Your task to perform on an android device: uninstall "Google Calendar" Image 0: 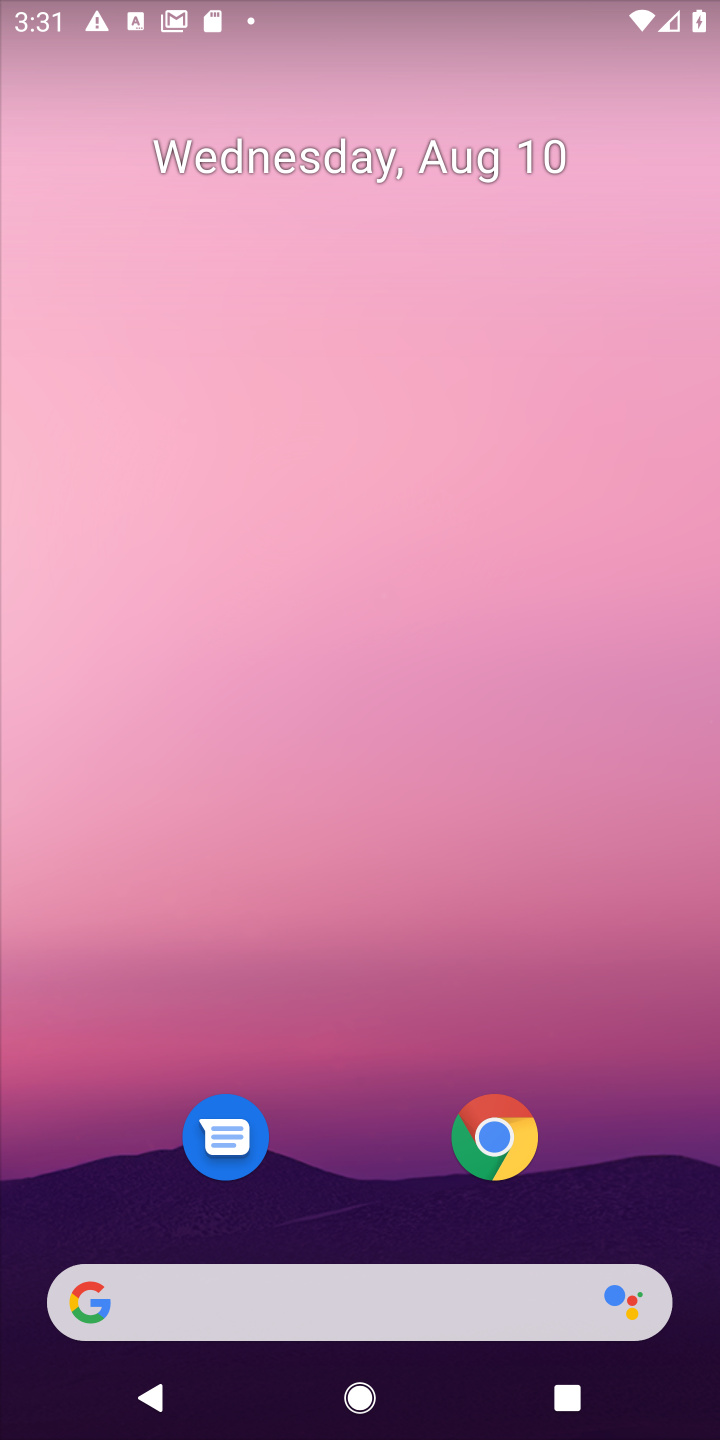
Step 0: drag from (348, 990) to (406, 688)
Your task to perform on an android device: uninstall "Google Calendar" Image 1: 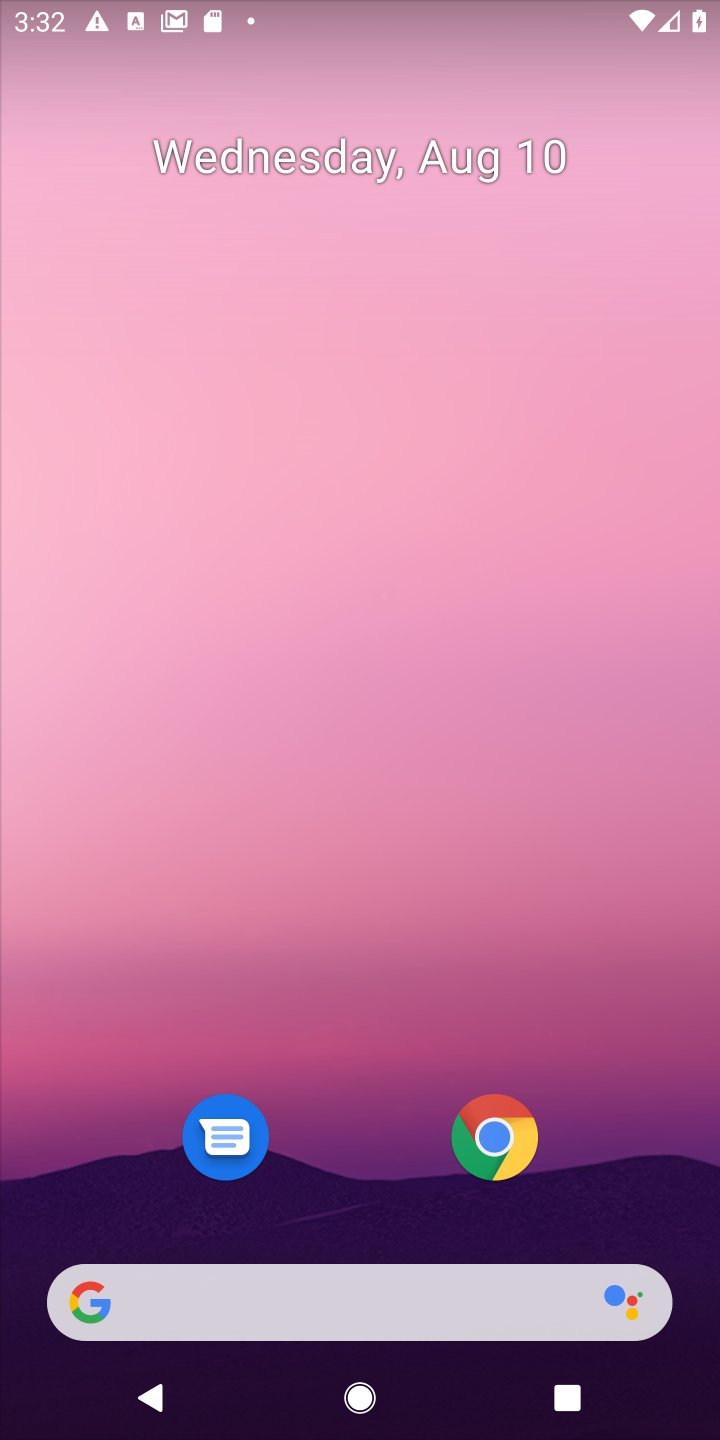
Step 1: drag from (439, 1160) to (388, 454)
Your task to perform on an android device: uninstall "Google Calendar" Image 2: 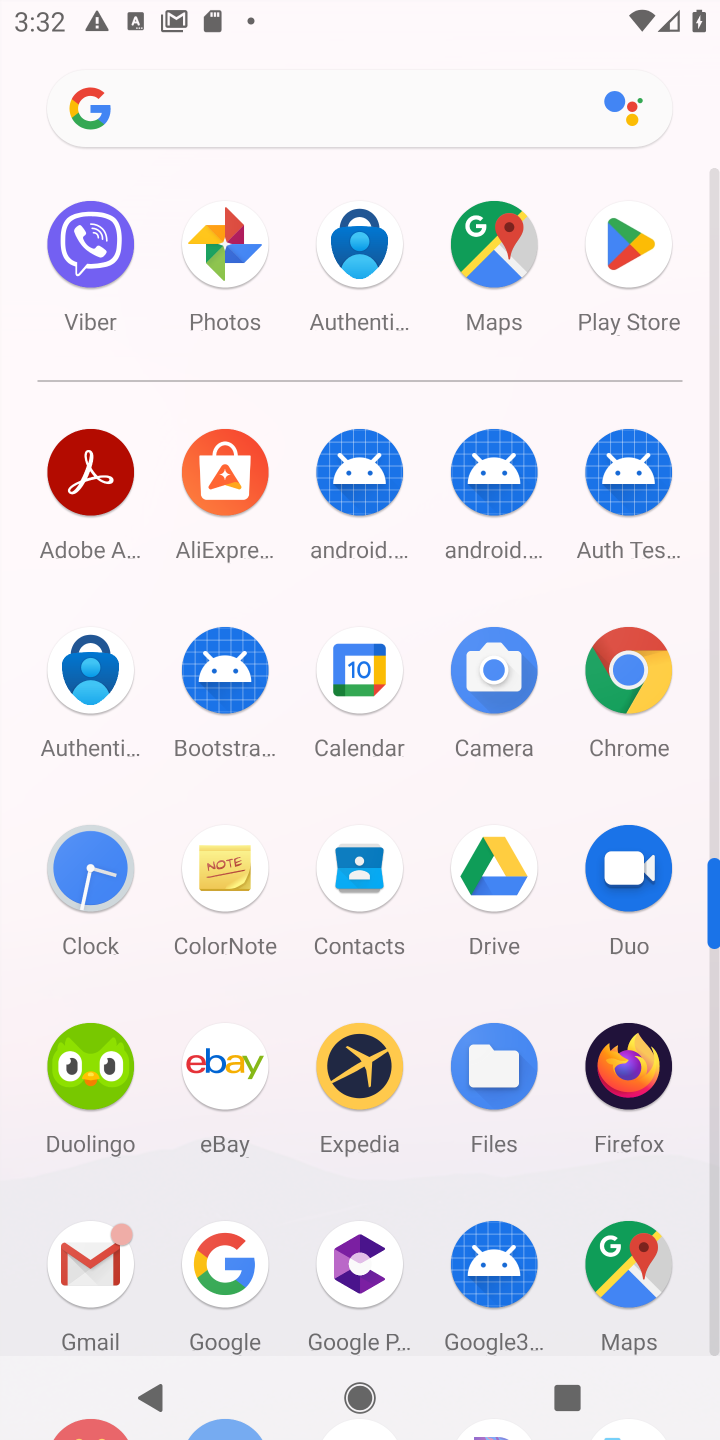
Step 2: click (609, 264)
Your task to perform on an android device: uninstall "Google Calendar" Image 3: 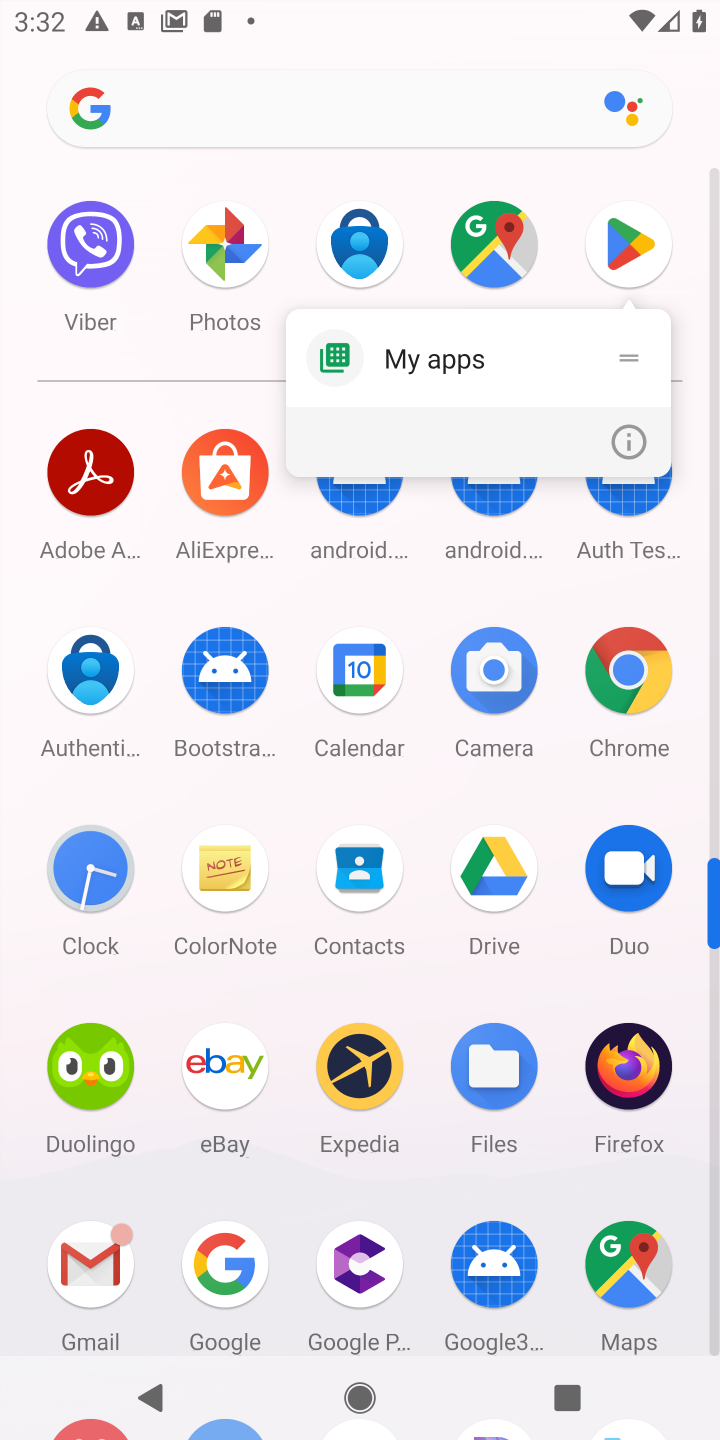
Step 3: click (609, 264)
Your task to perform on an android device: uninstall "Google Calendar" Image 4: 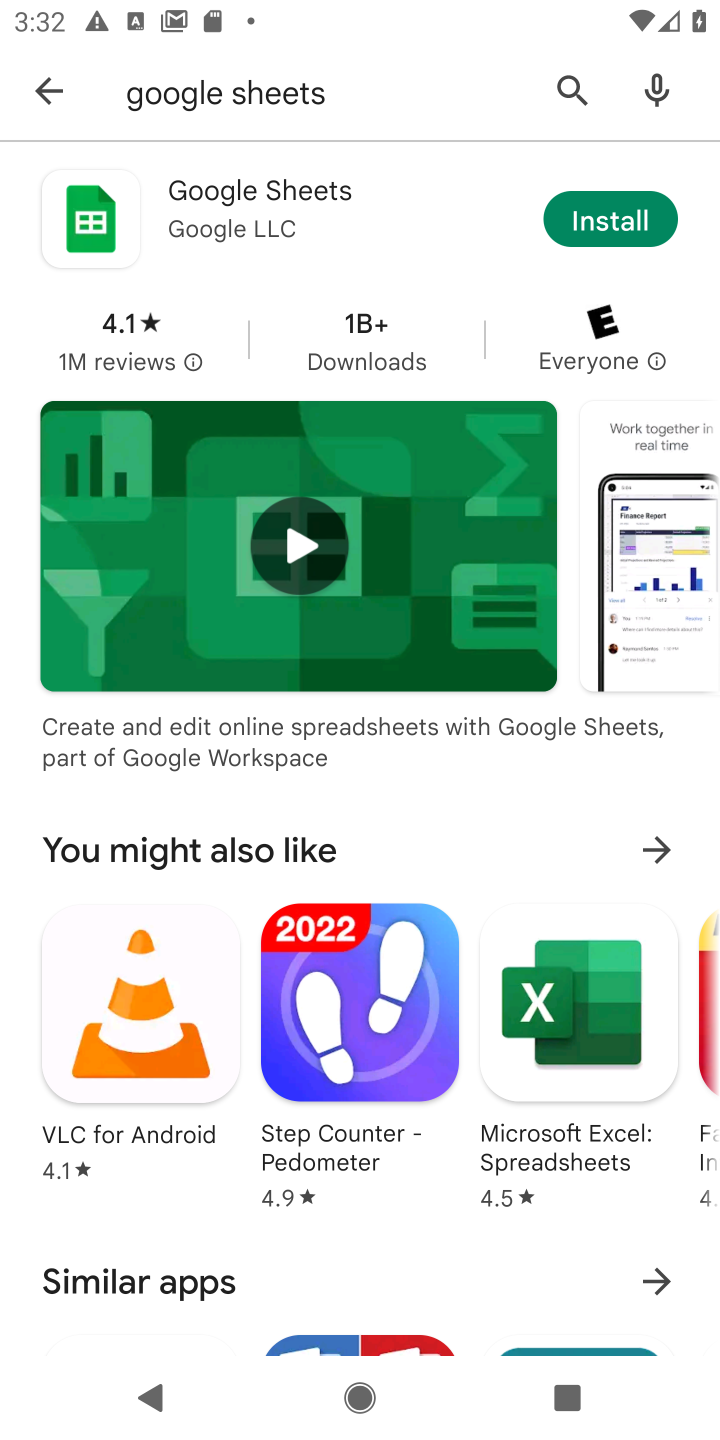
Step 4: click (264, 91)
Your task to perform on an android device: uninstall "Google Calendar" Image 5: 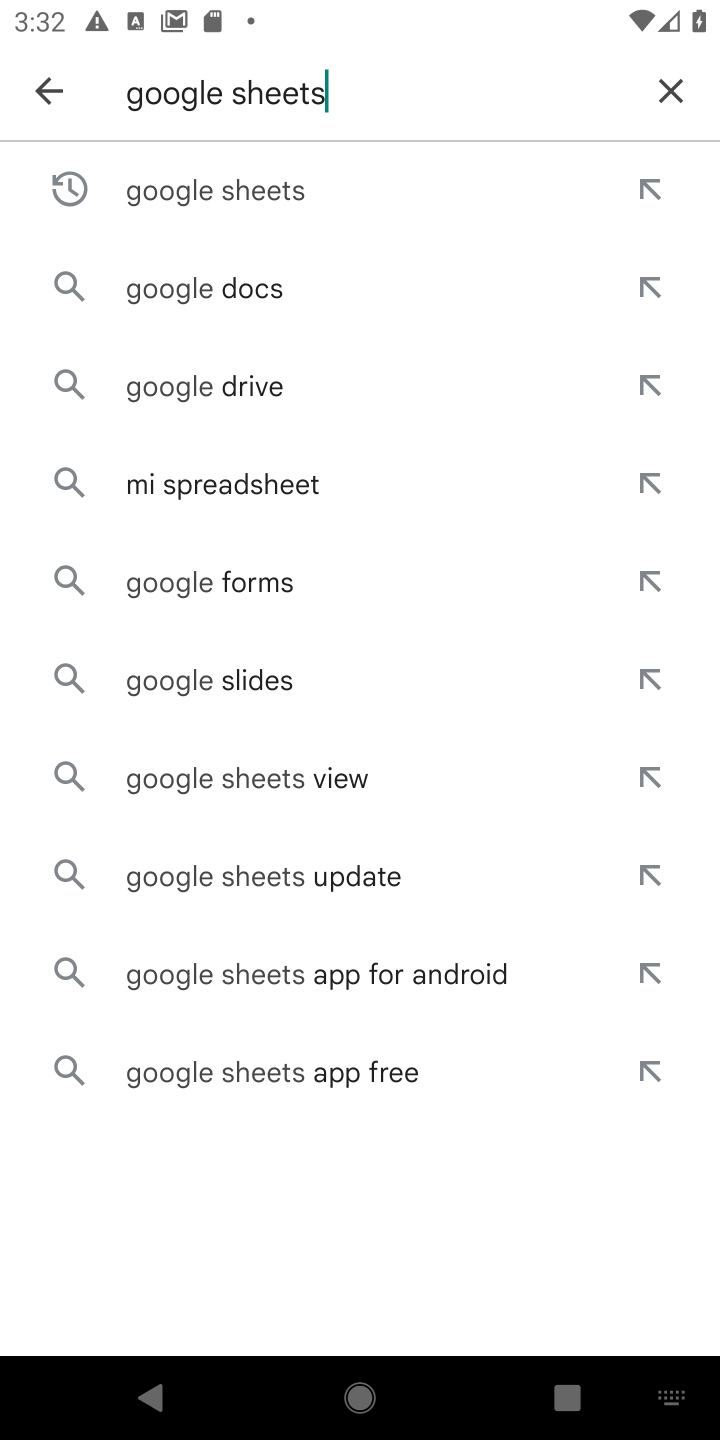
Step 5: click (669, 77)
Your task to perform on an android device: uninstall "Google Calendar" Image 6: 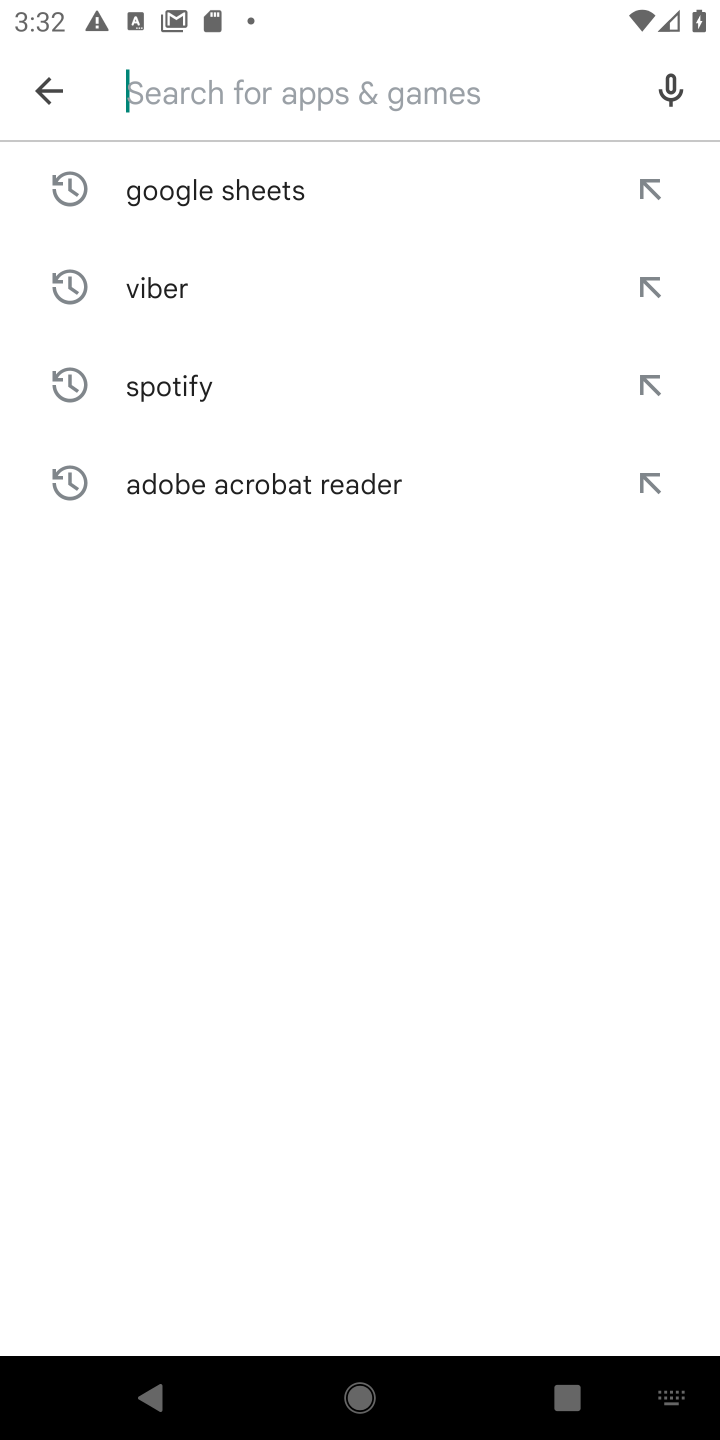
Step 6: type "google calender"
Your task to perform on an android device: uninstall "Google Calendar" Image 7: 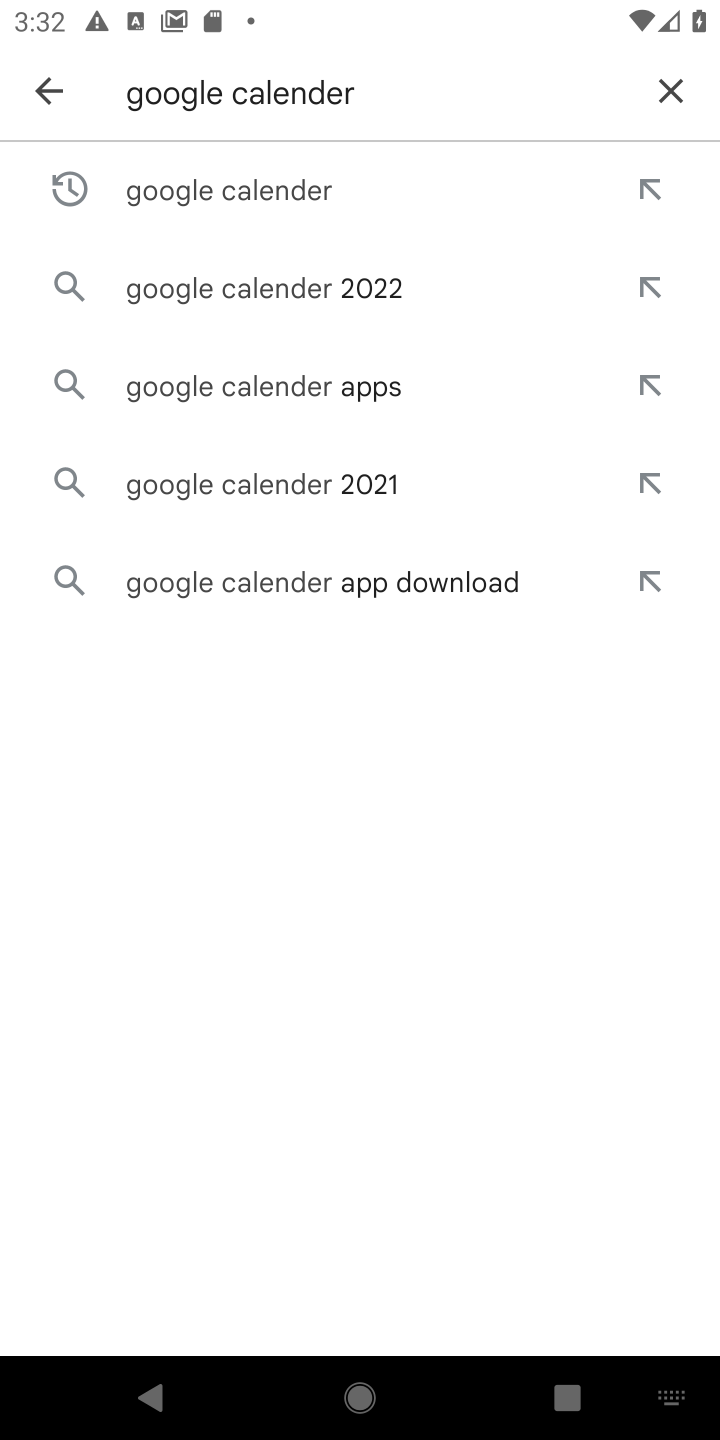
Step 7: click (292, 201)
Your task to perform on an android device: uninstall "Google Calendar" Image 8: 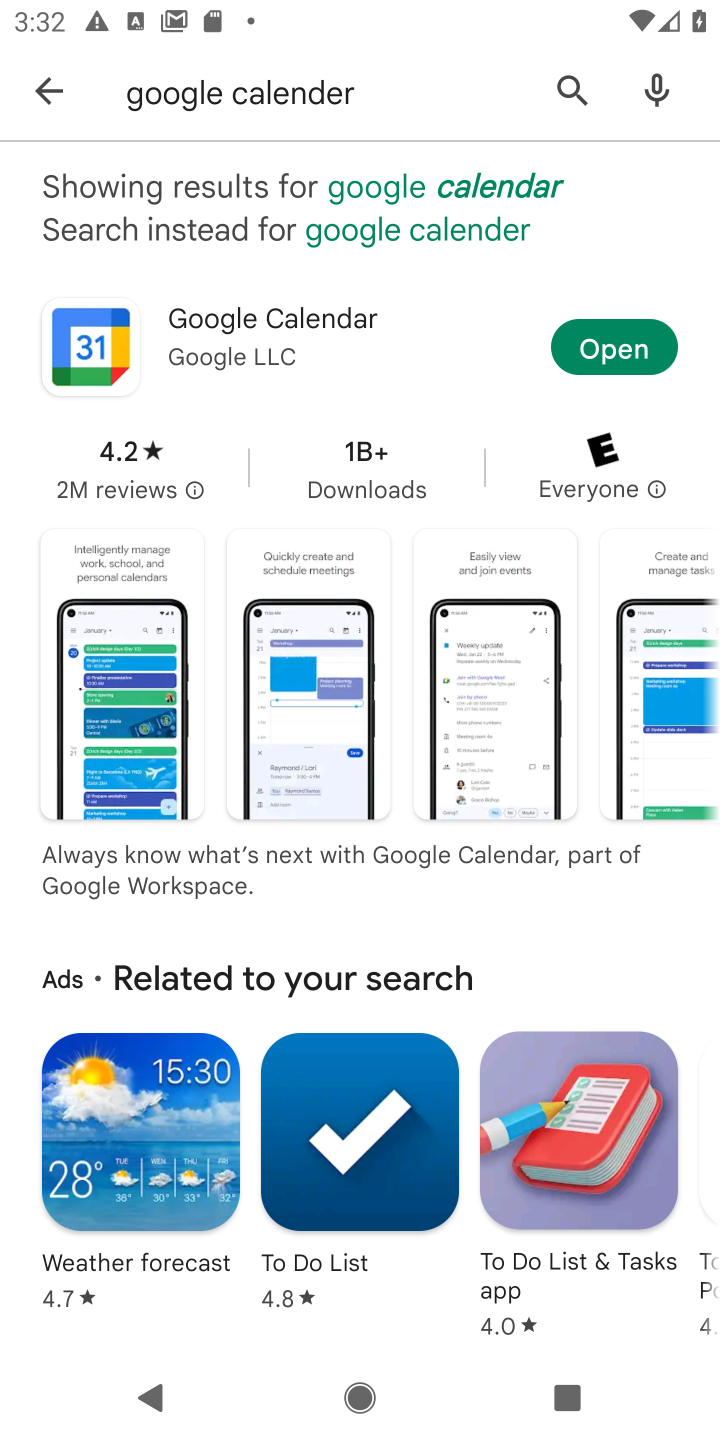
Step 8: click (130, 327)
Your task to perform on an android device: uninstall "Google Calendar" Image 9: 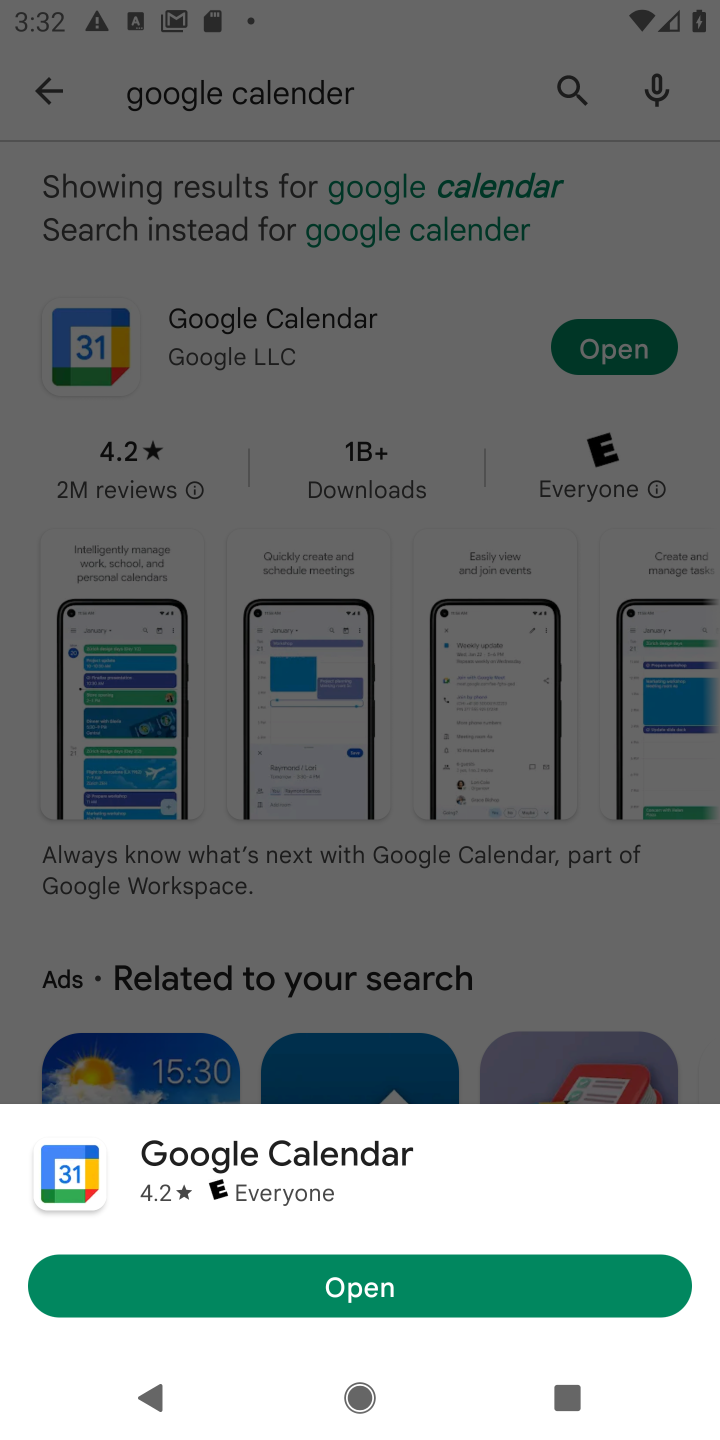
Step 9: click (267, 334)
Your task to perform on an android device: uninstall "Google Calendar" Image 10: 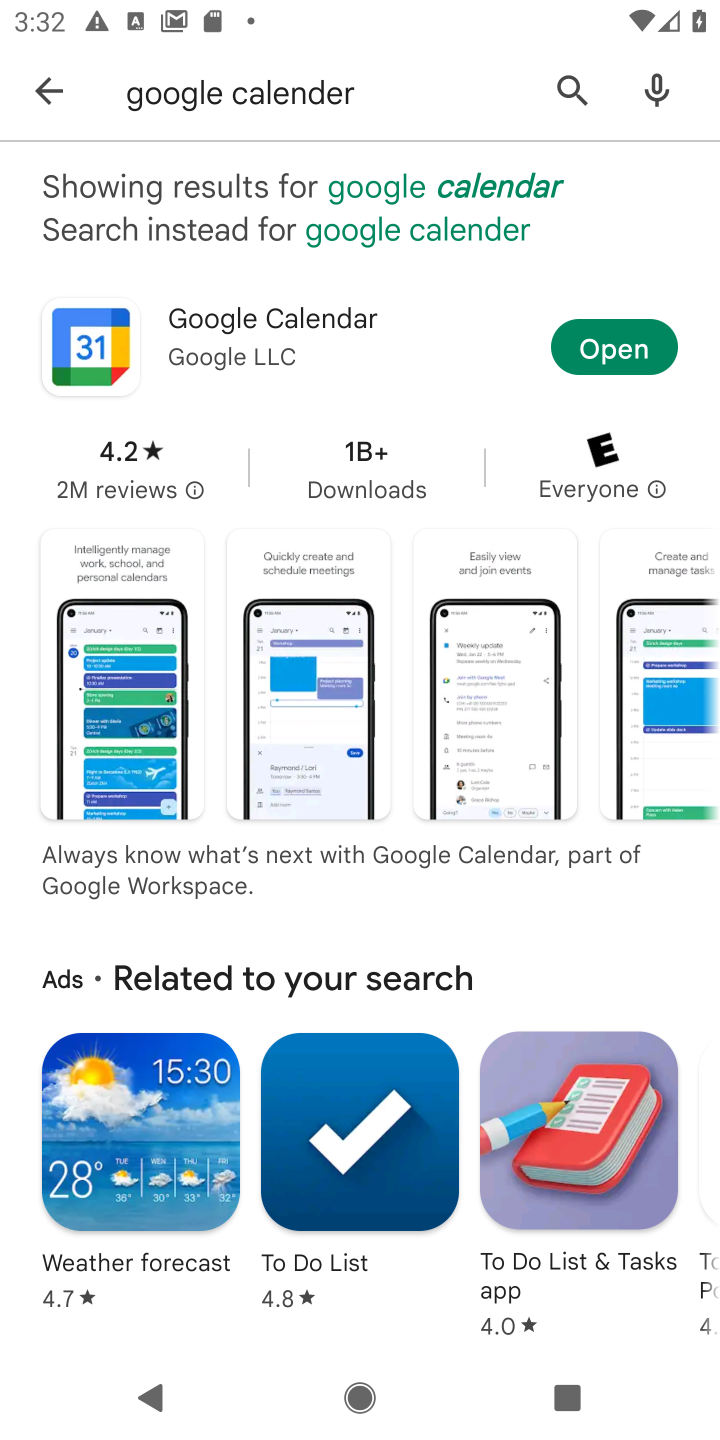
Step 10: click (267, 334)
Your task to perform on an android device: uninstall "Google Calendar" Image 11: 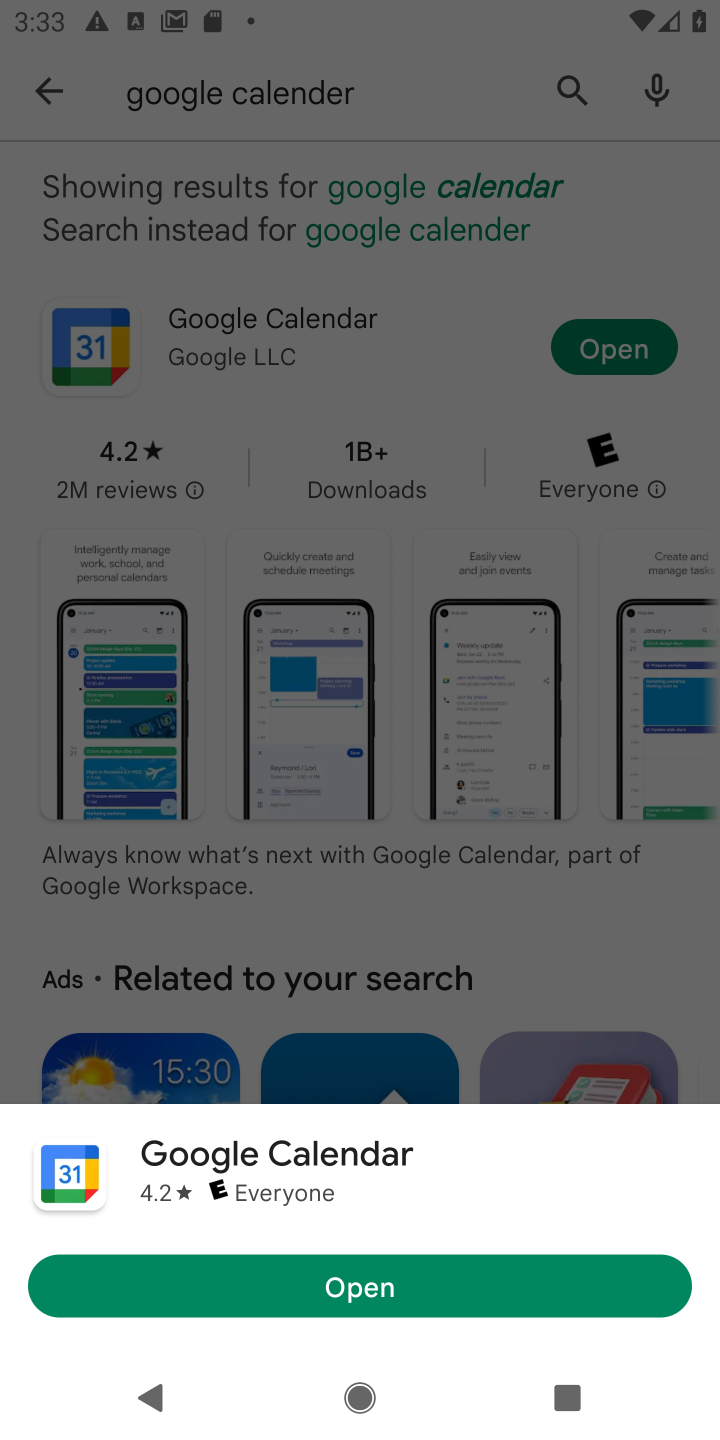
Step 11: press home button
Your task to perform on an android device: uninstall "Google Calendar" Image 12: 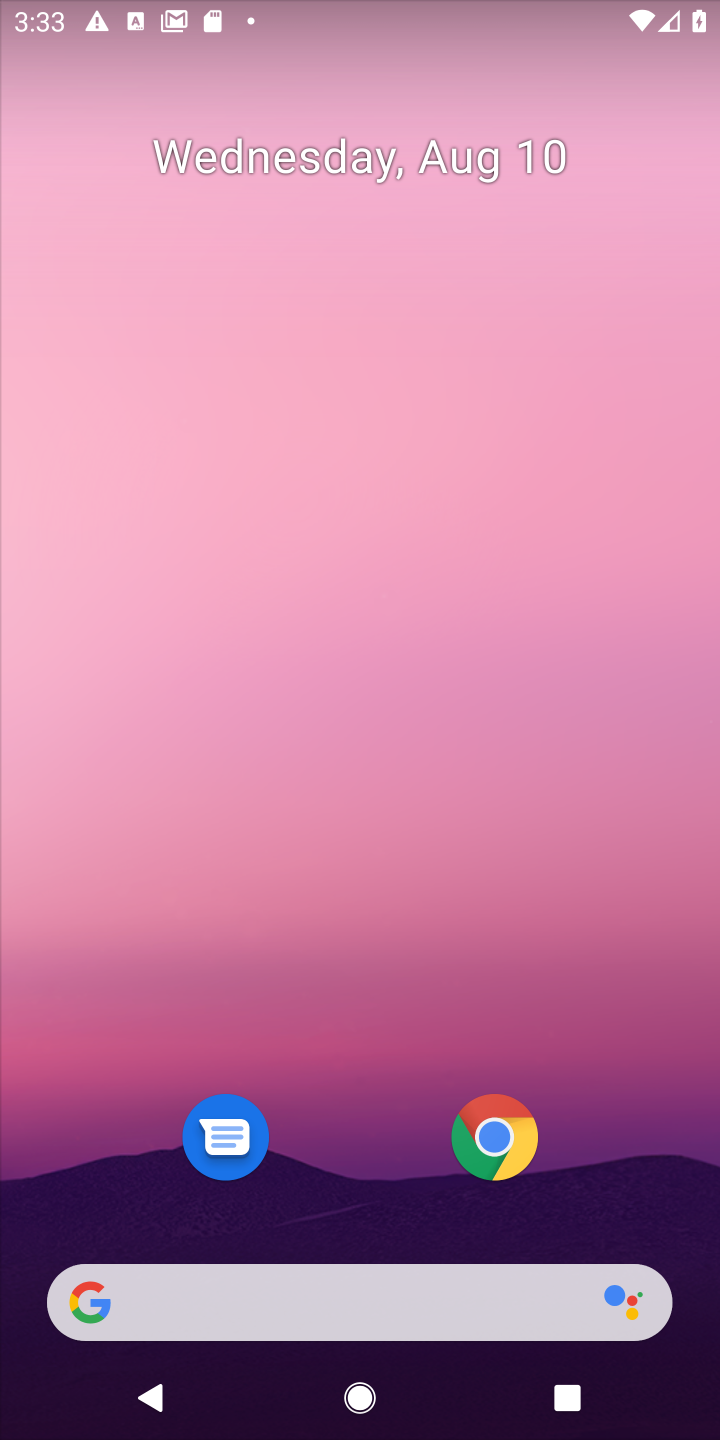
Step 12: drag from (349, 1161) to (372, 387)
Your task to perform on an android device: uninstall "Google Calendar" Image 13: 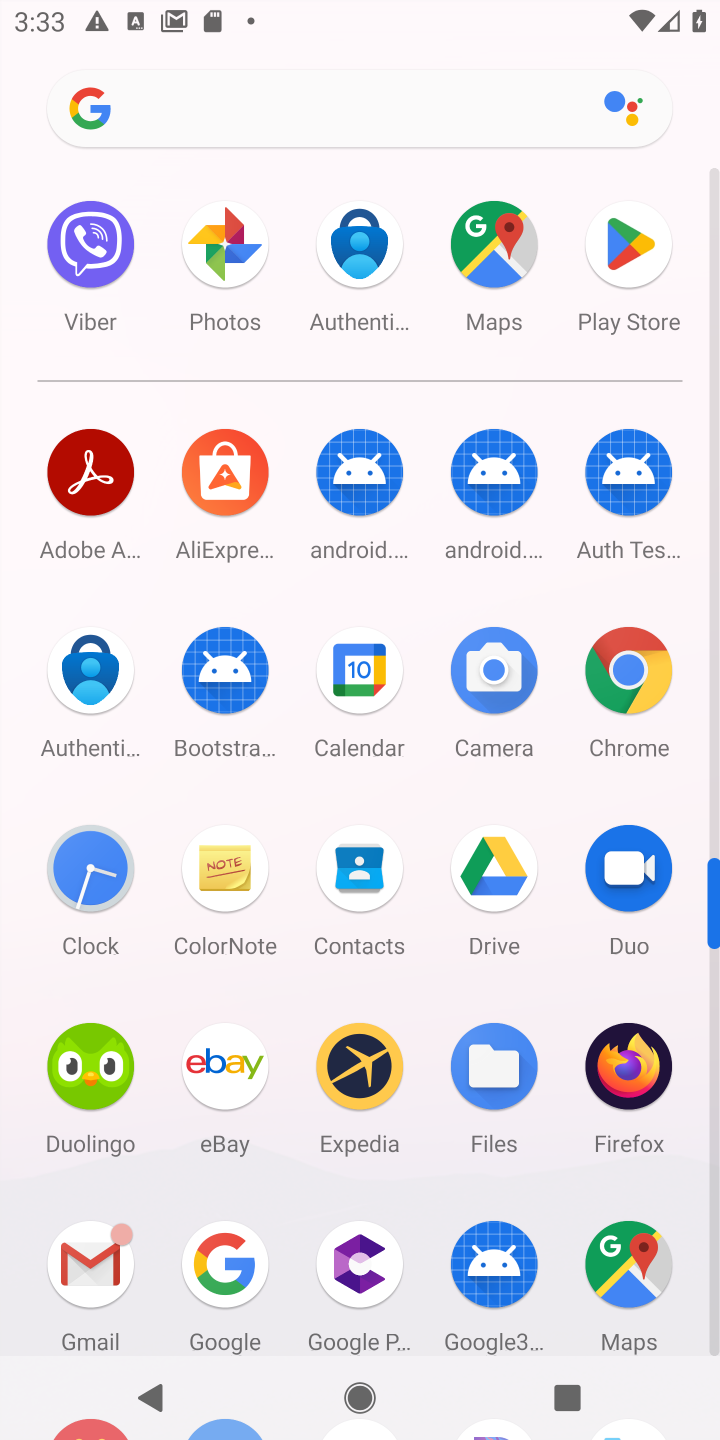
Step 13: click (369, 698)
Your task to perform on an android device: uninstall "Google Calendar" Image 14: 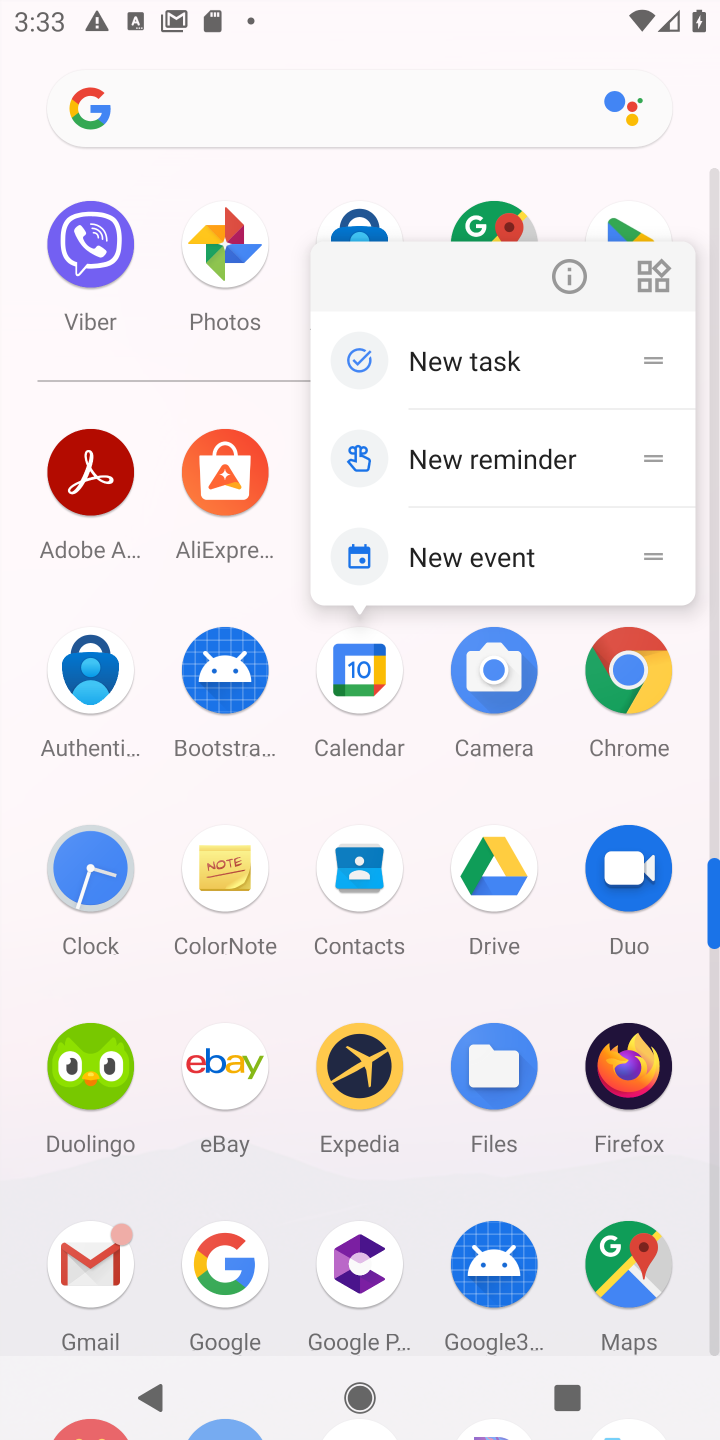
Step 14: click (568, 278)
Your task to perform on an android device: uninstall "Google Calendar" Image 15: 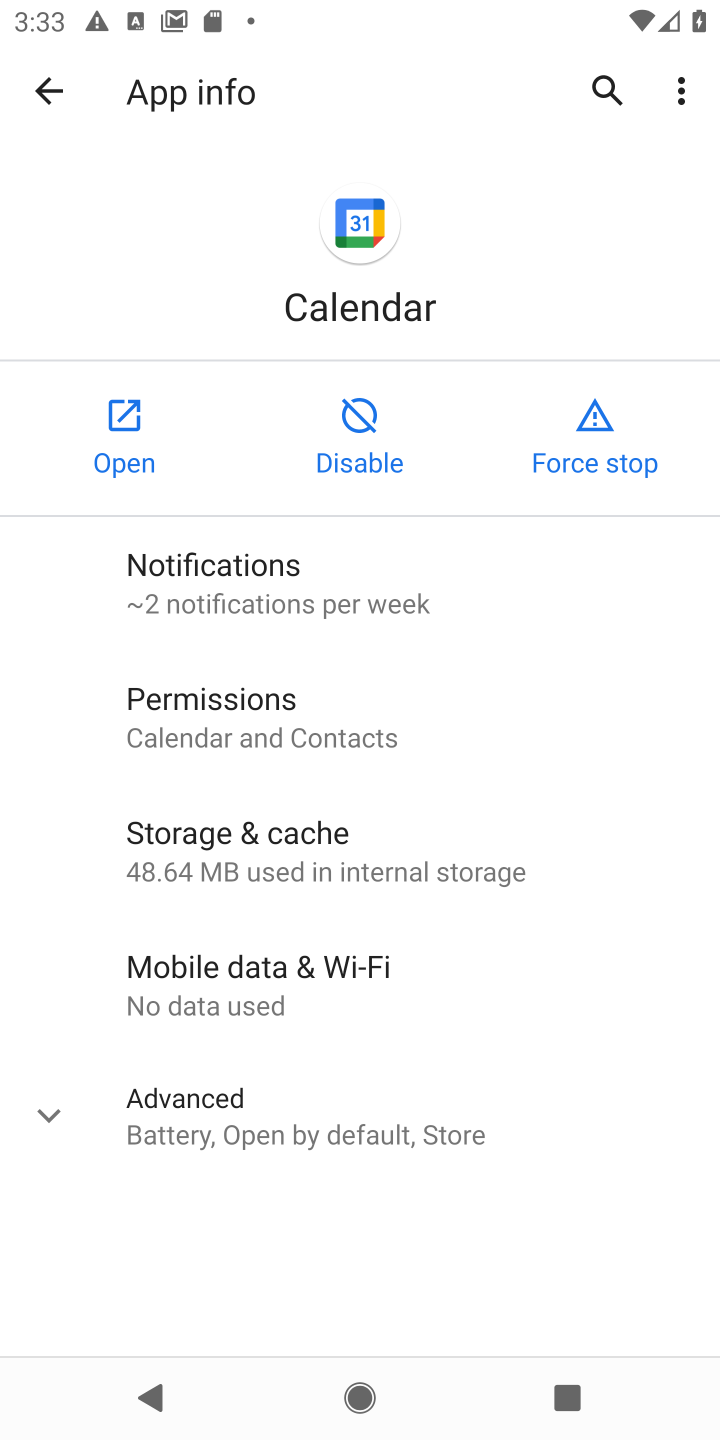
Step 15: click (243, 1109)
Your task to perform on an android device: uninstall "Google Calendar" Image 16: 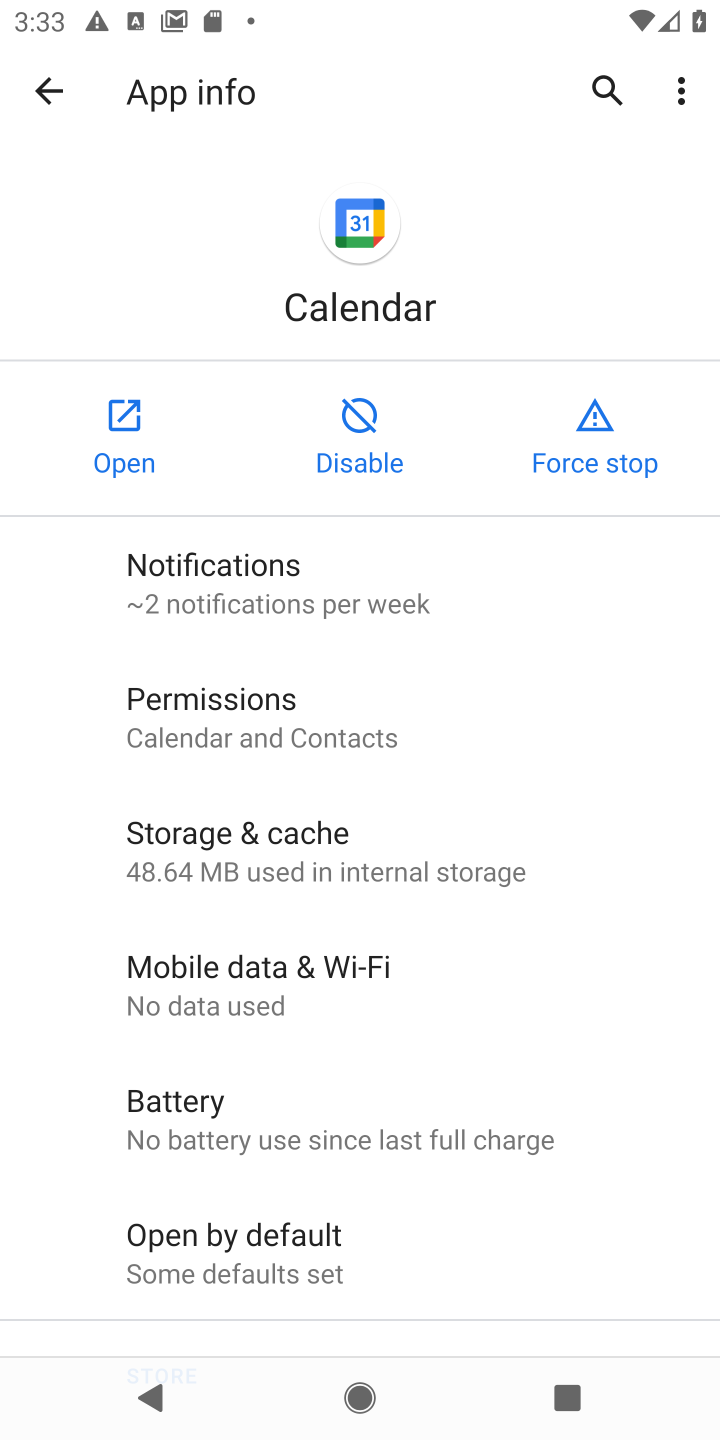
Step 16: task complete